Your task to perform on an android device: Open Google Maps and go to "Timeline" Image 0: 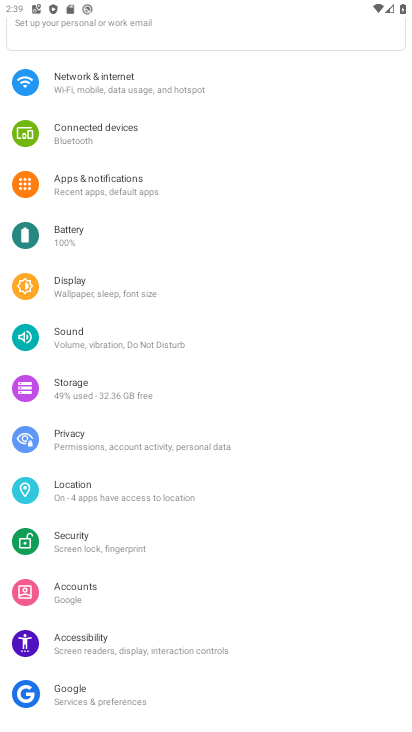
Step 0: press home button
Your task to perform on an android device: Open Google Maps and go to "Timeline" Image 1: 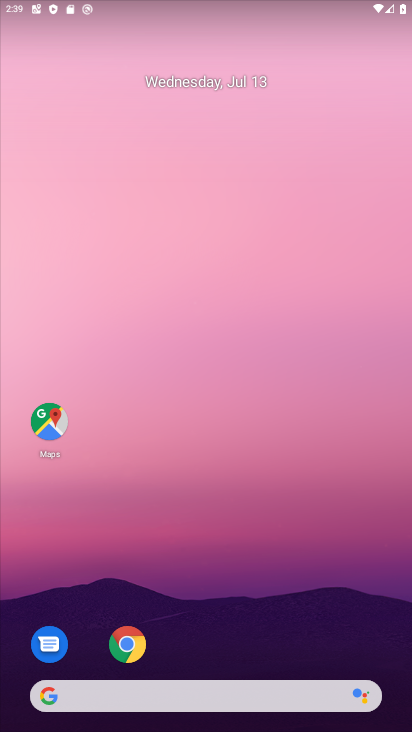
Step 1: drag from (247, 652) to (224, 101)
Your task to perform on an android device: Open Google Maps and go to "Timeline" Image 2: 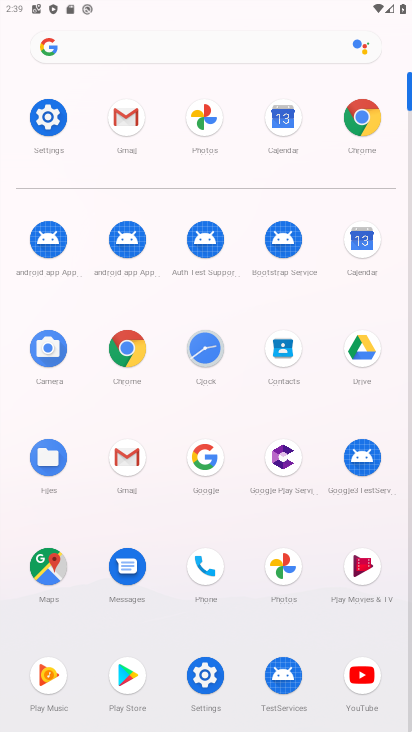
Step 2: click (47, 570)
Your task to perform on an android device: Open Google Maps and go to "Timeline" Image 3: 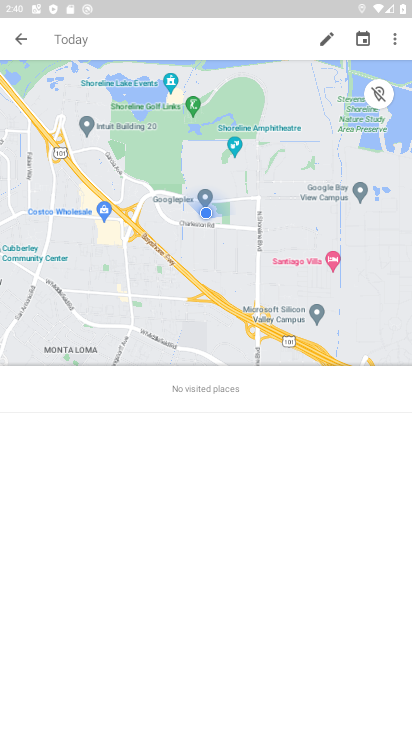
Step 3: task complete